Your task to perform on an android device: toggle priority inbox in the gmail app Image 0: 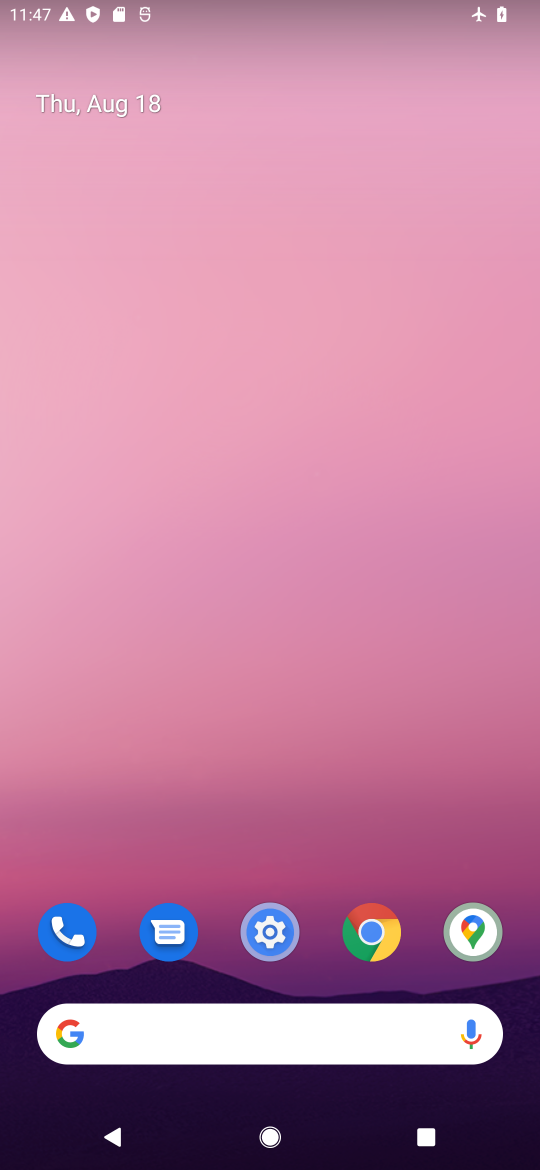
Step 0: drag from (317, 963) to (162, 138)
Your task to perform on an android device: toggle priority inbox in the gmail app Image 1: 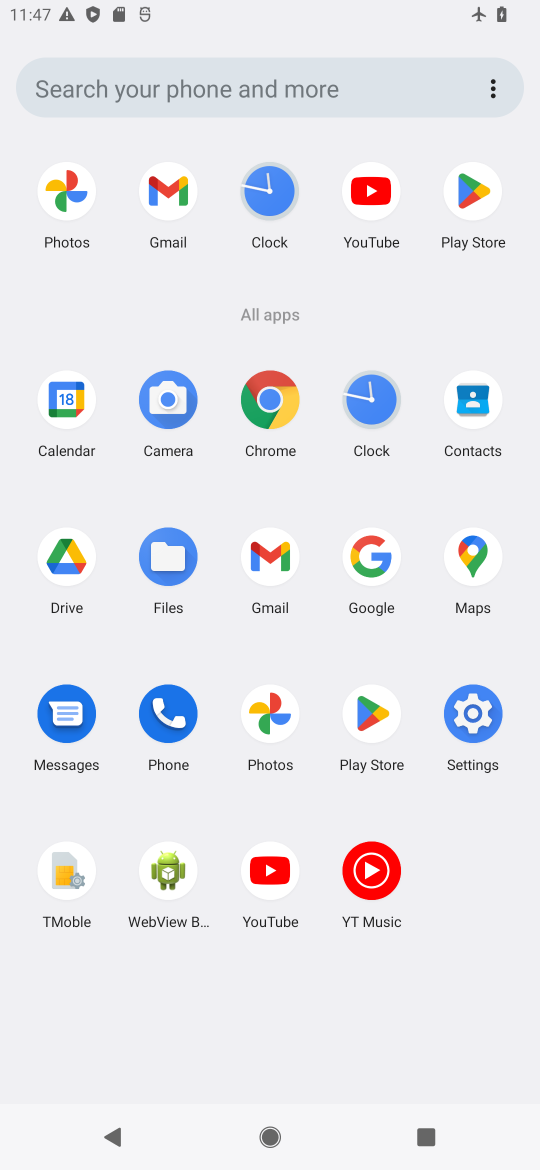
Step 1: click (163, 193)
Your task to perform on an android device: toggle priority inbox in the gmail app Image 2: 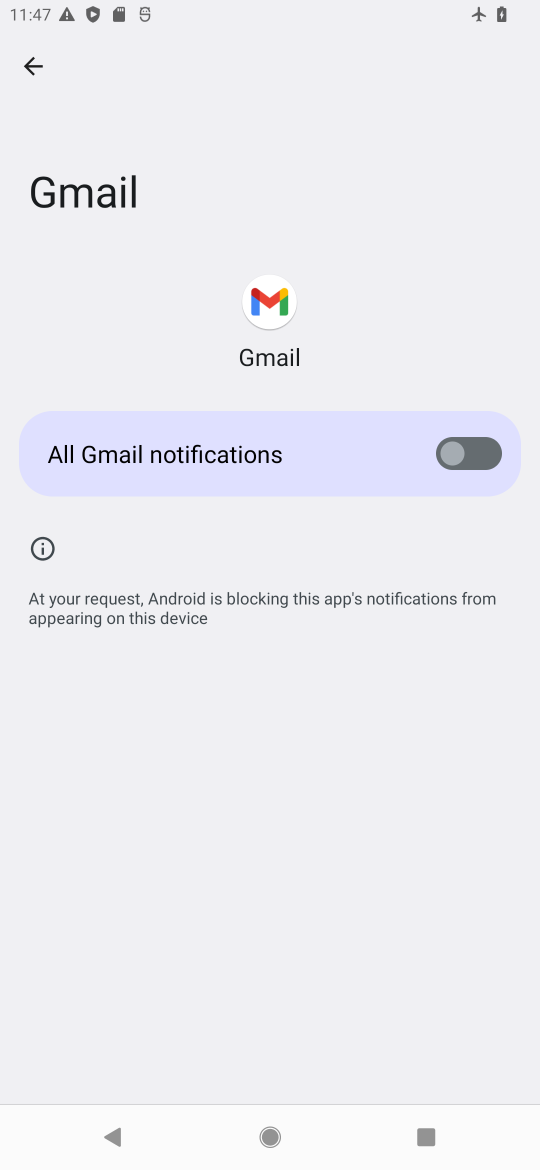
Step 2: click (24, 74)
Your task to perform on an android device: toggle priority inbox in the gmail app Image 3: 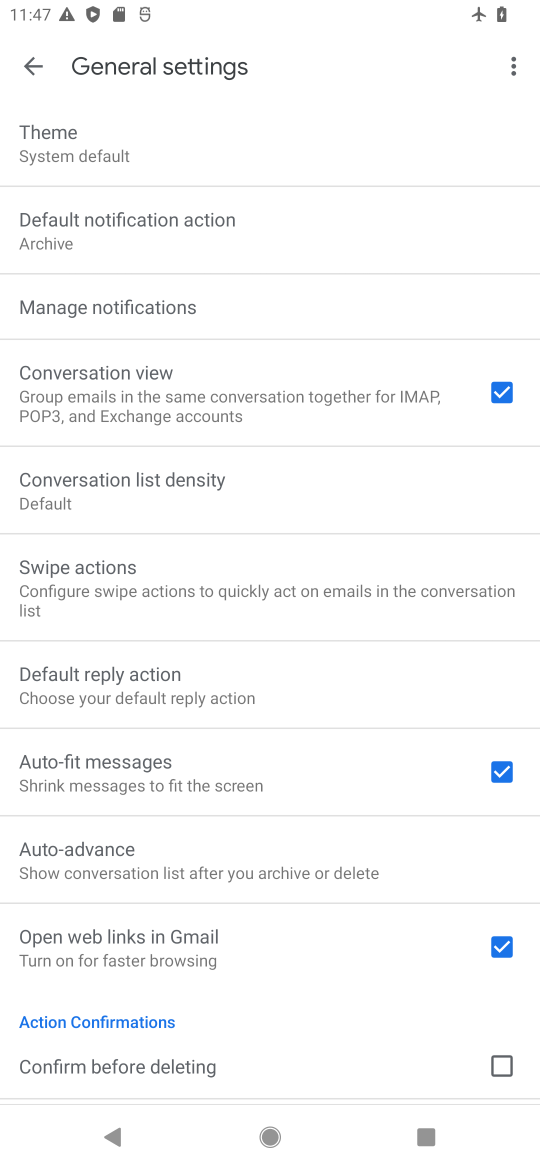
Step 3: click (35, 73)
Your task to perform on an android device: toggle priority inbox in the gmail app Image 4: 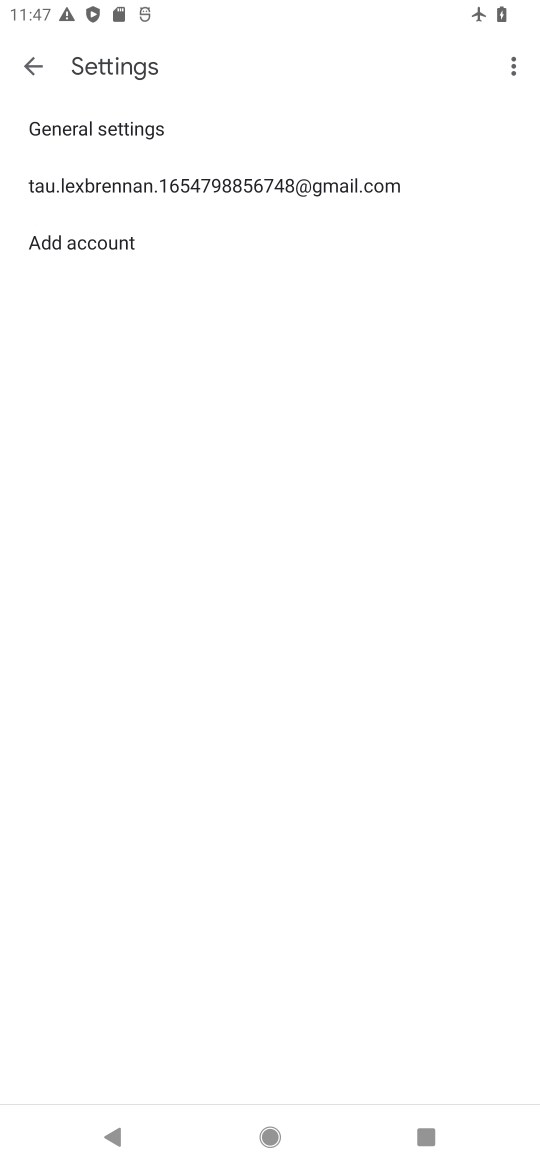
Step 4: click (76, 189)
Your task to perform on an android device: toggle priority inbox in the gmail app Image 5: 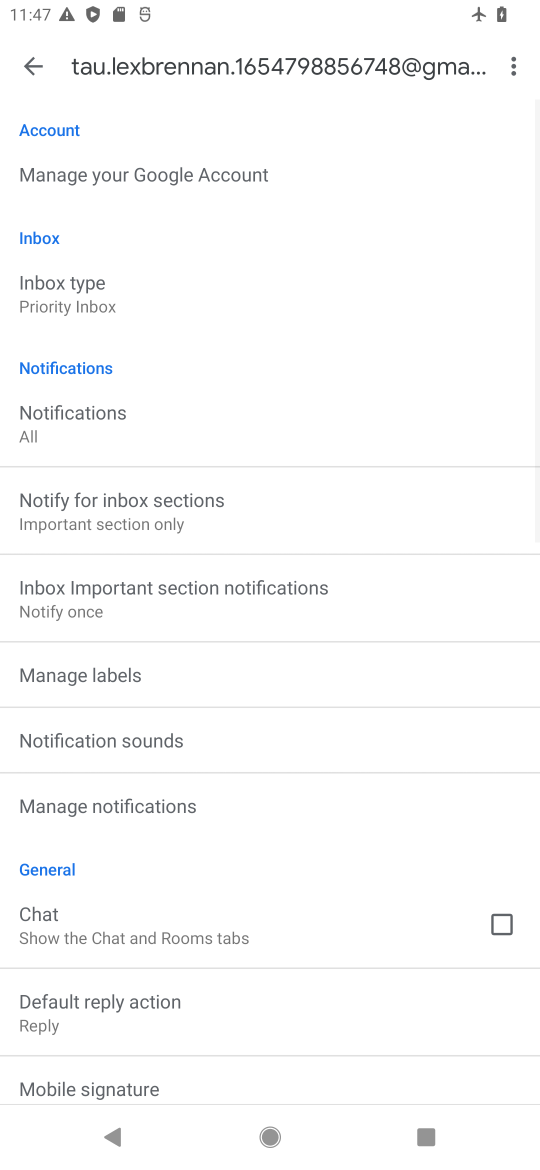
Step 5: click (78, 292)
Your task to perform on an android device: toggle priority inbox in the gmail app Image 6: 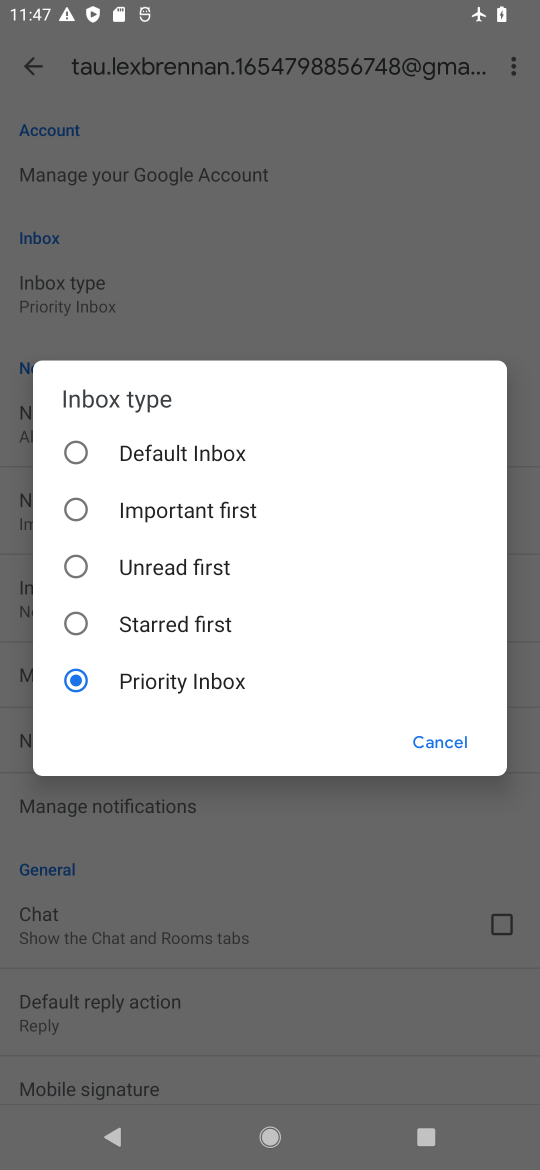
Step 6: click (70, 451)
Your task to perform on an android device: toggle priority inbox in the gmail app Image 7: 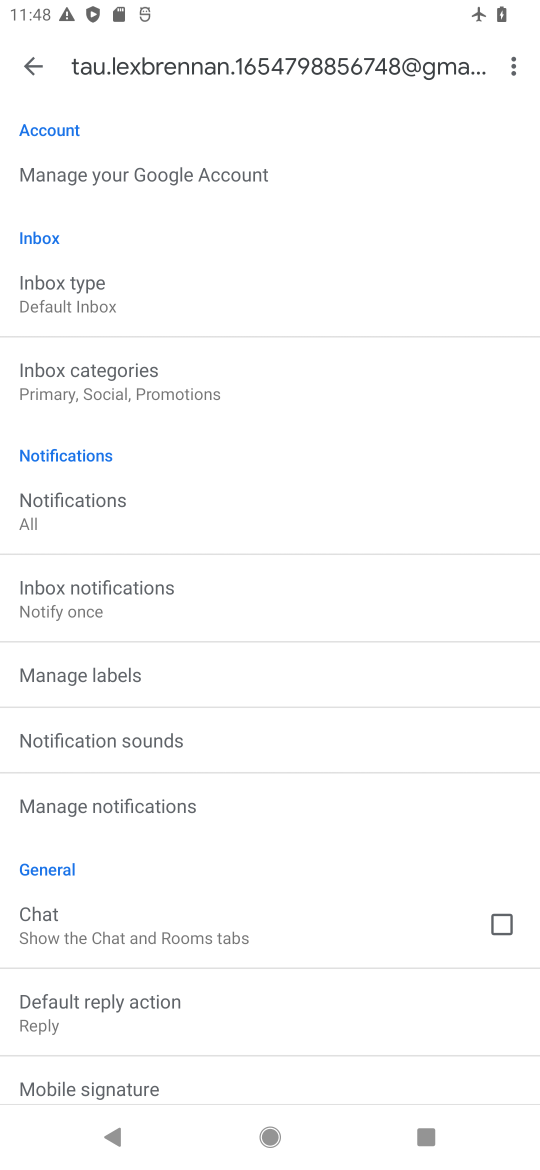
Step 7: task complete